Your task to perform on an android device: Open eBay Image 0: 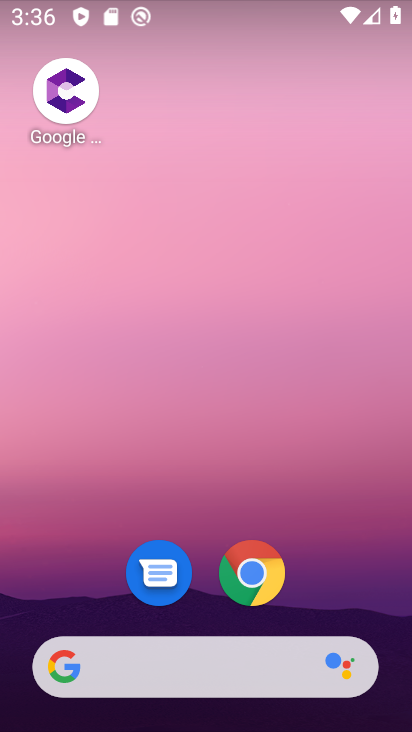
Step 0: click (251, 561)
Your task to perform on an android device: Open eBay Image 1: 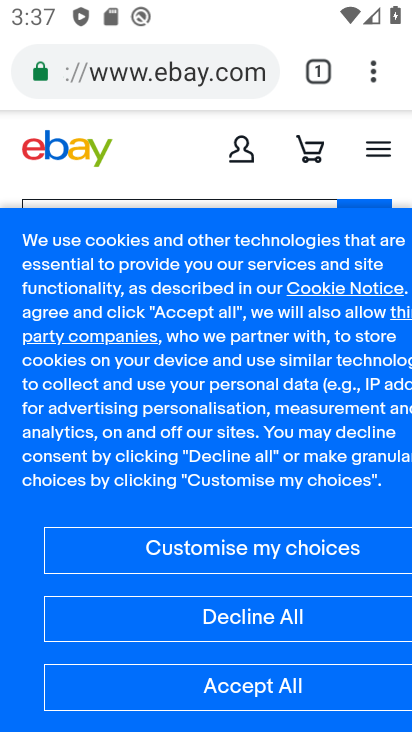
Step 1: task complete